Your task to perform on an android device: change the clock display to analog Image 0: 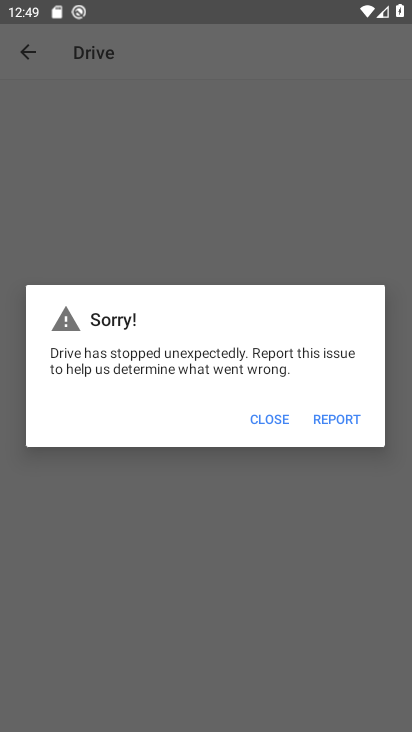
Step 0: press home button
Your task to perform on an android device: change the clock display to analog Image 1: 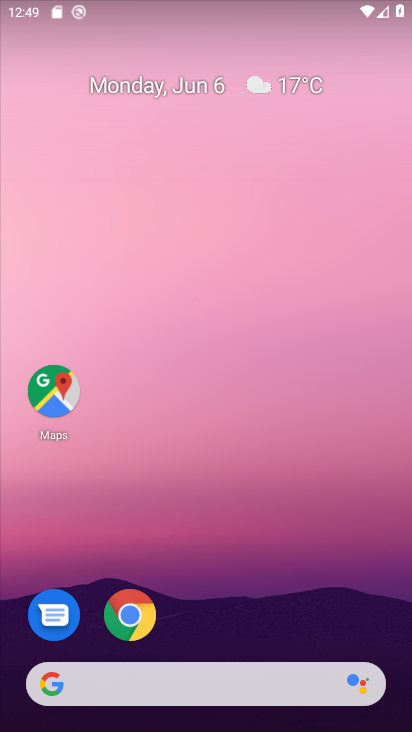
Step 1: drag from (273, 620) to (337, 16)
Your task to perform on an android device: change the clock display to analog Image 2: 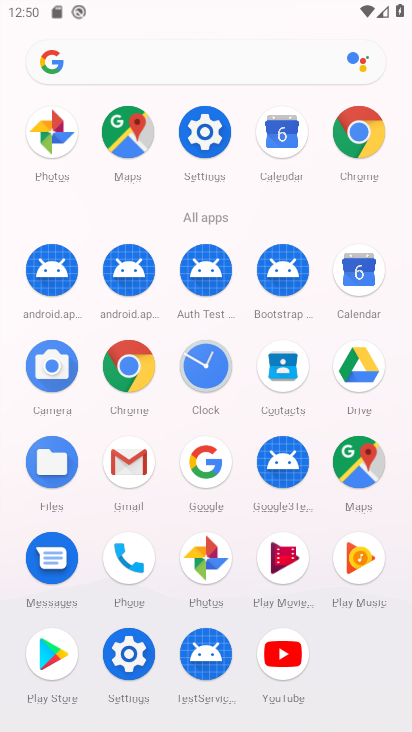
Step 2: click (213, 376)
Your task to perform on an android device: change the clock display to analog Image 3: 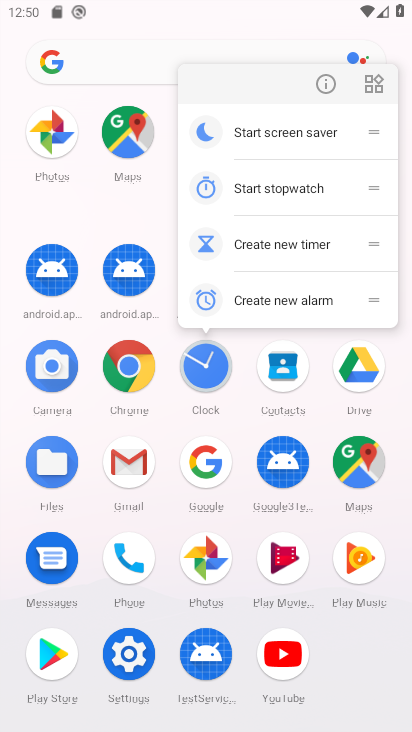
Step 3: click (214, 376)
Your task to perform on an android device: change the clock display to analog Image 4: 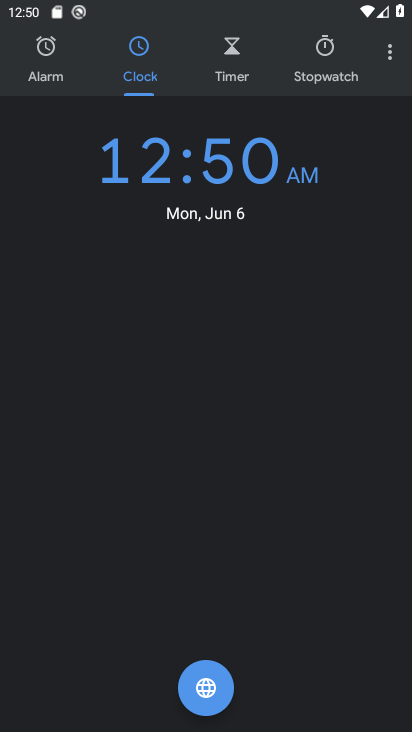
Step 4: click (402, 47)
Your task to perform on an android device: change the clock display to analog Image 5: 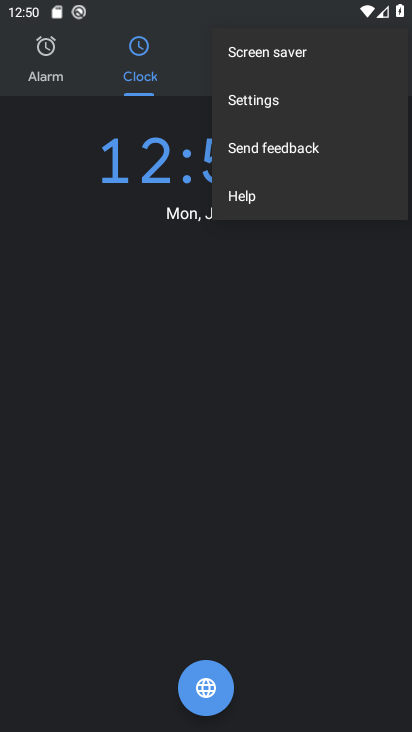
Step 5: click (266, 108)
Your task to perform on an android device: change the clock display to analog Image 6: 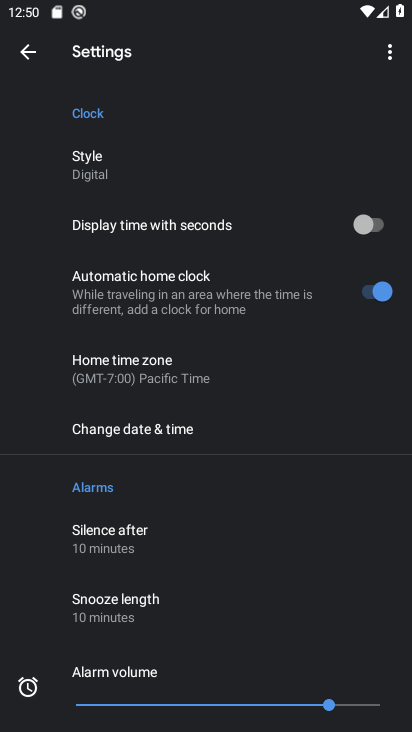
Step 6: click (125, 177)
Your task to perform on an android device: change the clock display to analog Image 7: 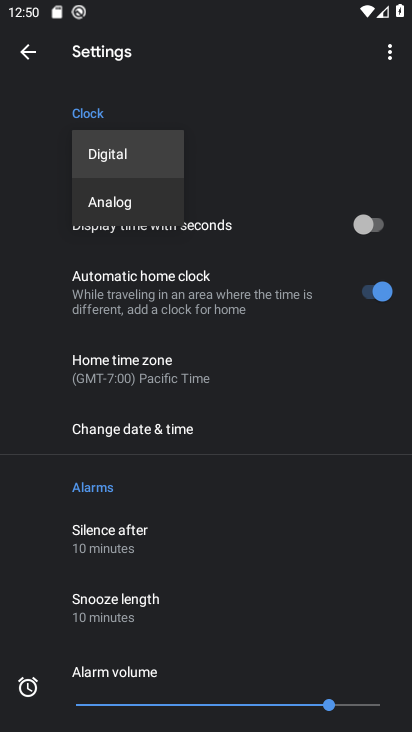
Step 7: click (131, 201)
Your task to perform on an android device: change the clock display to analog Image 8: 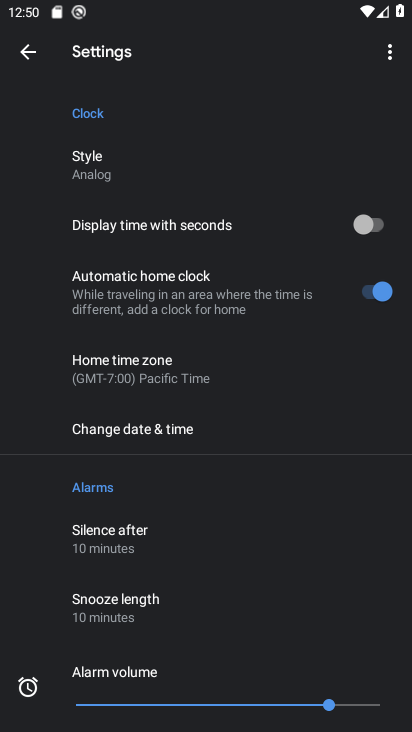
Step 8: task complete